Your task to perform on an android device: change your default location settings in chrome Image 0: 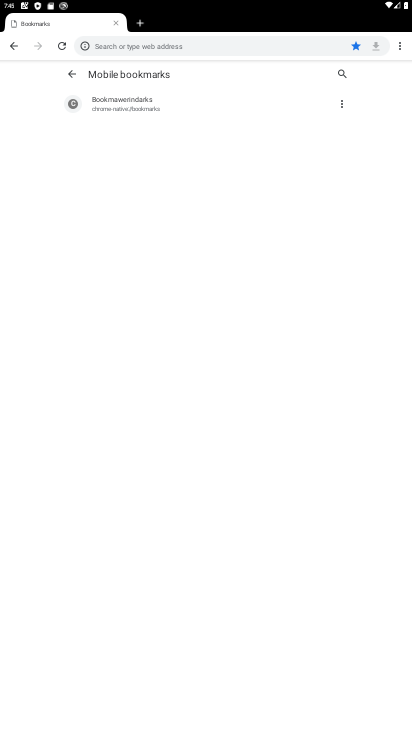
Step 0: drag from (388, 412) to (401, 352)
Your task to perform on an android device: change your default location settings in chrome Image 1: 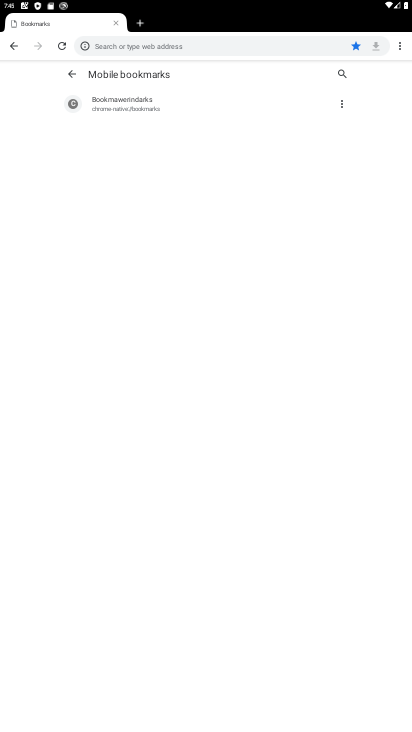
Step 1: drag from (224, 603) to (278, 378)
Your task to perform on an android device: change your default location settings in chrome Image 2: 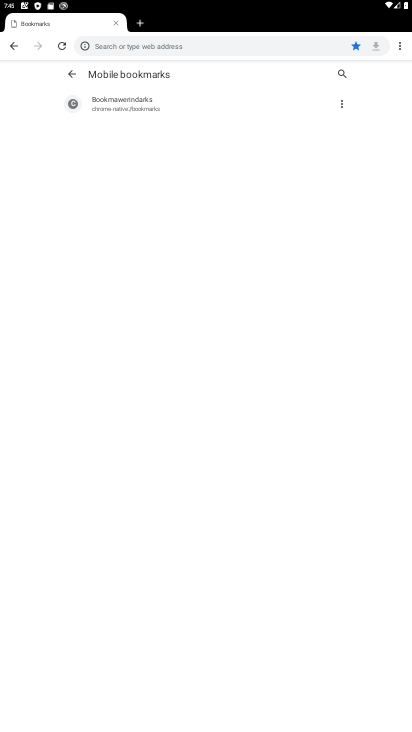
Step 2: drag from (399, 52) to (335, 219)
Your task to perform on an android device: change your default location settings in chrome Image 3: 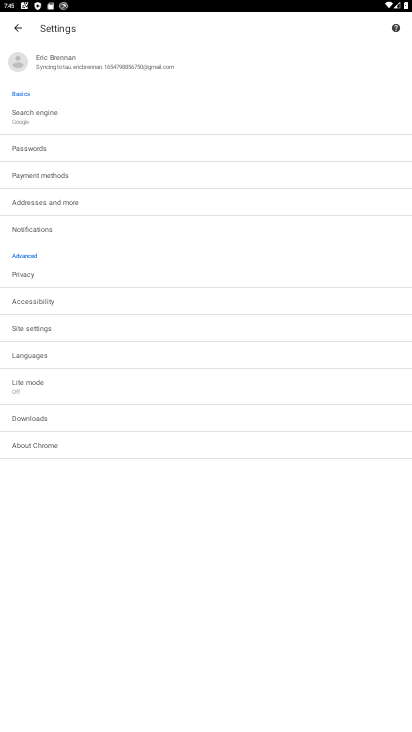
Step 3: click (59, 332)
Your task to perform on an android device: change your default location settings in chrome Image 4: 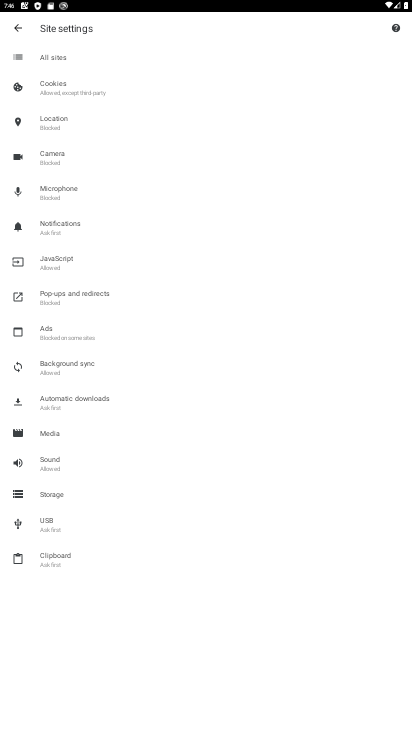
Step 4: click (77, 115)
Your task to perform on an android device: change your default location settings in chrome Image 5: 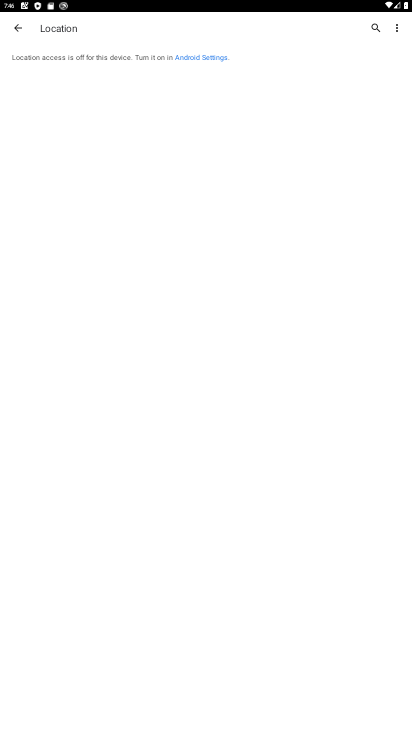
Step 5: click (194, 377)
Your task to perform on an android device: change your default location settings in chrome Image 6: 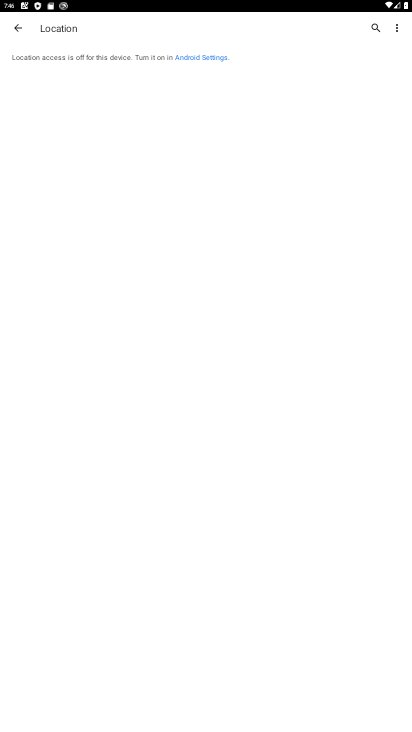
Step 6: task complete